Your task to perform on an android device: toggle pop-ups in chrome Image 0: 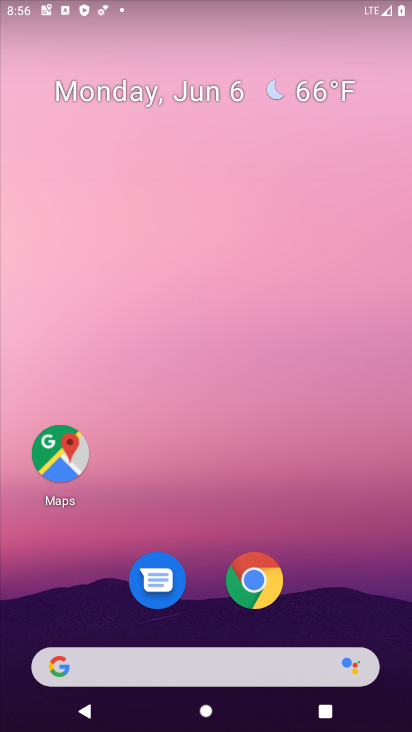
Step 0: drag from (347, 576) to (170, 0)
Your task to perform on an android device: toggle pop-ups in chrome Image 1: 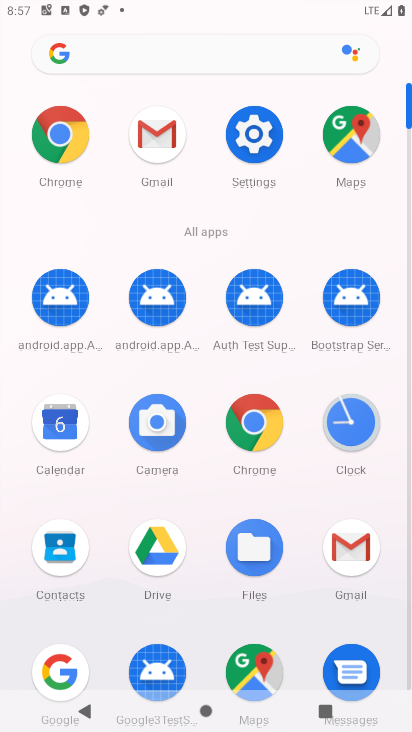
Step 1: click (55, 146)
Your task to perform on an android device: toggle pop-ups in chrome Image 2: 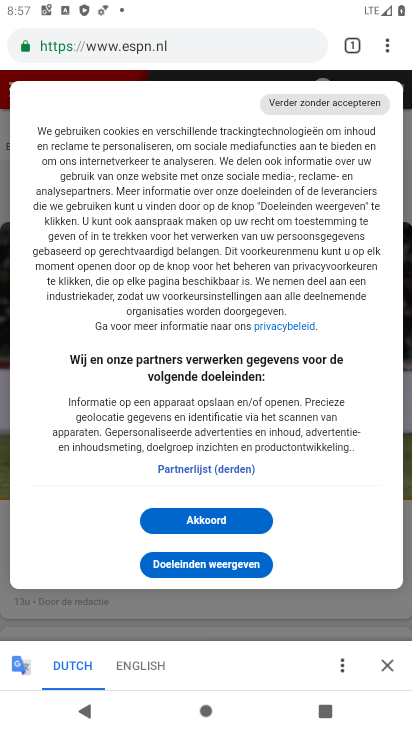
Step 2: drag from (396, 48) to (212, 549)
Your task to perform on an android device: toggle pop-ups in chrome Image 3: 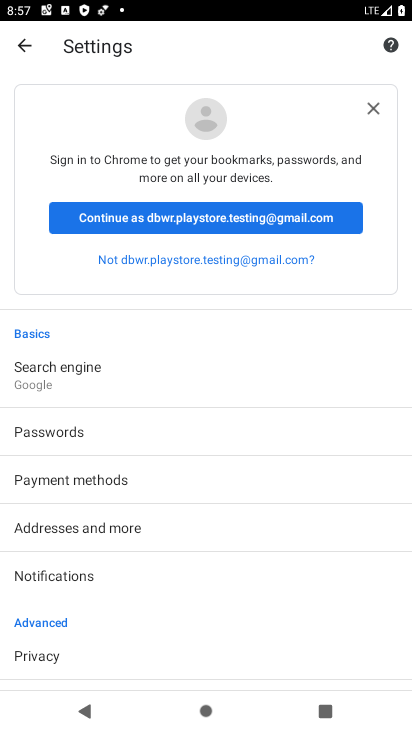
Step 3: drag from (137, 614) to (176, 230)
Your task to perform on an android device: toggle pop-ups in chrome Image 4: 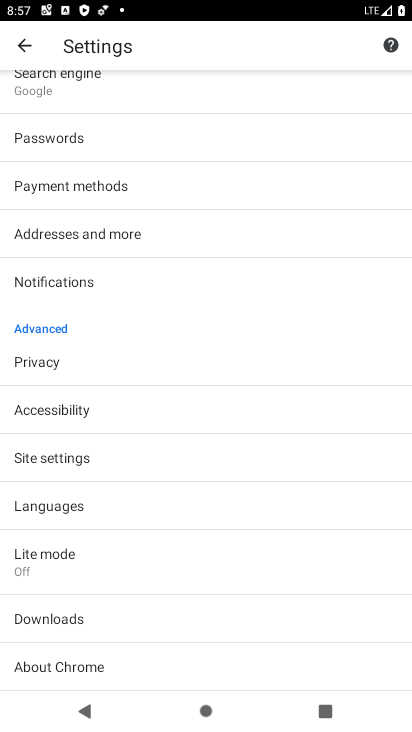
Step 4: drag from (118, 616) to (183, 123)
Your task to perform on an android device: toggle pop-ups in chrome Image 5: 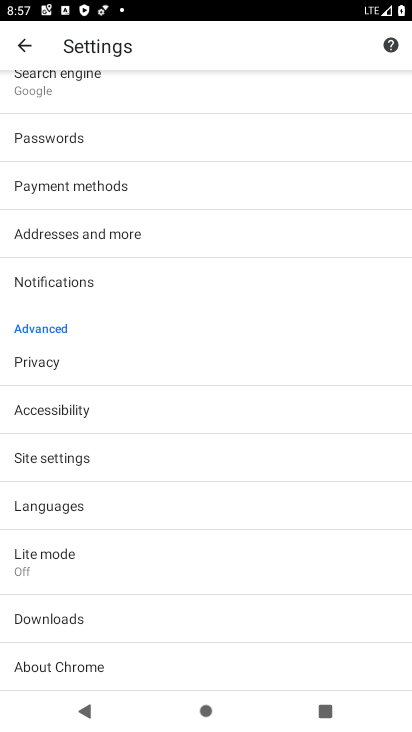
Step 5: click (30, 457)
Your task to perform on an android device: toggle pop-ups in chrome Image 6: 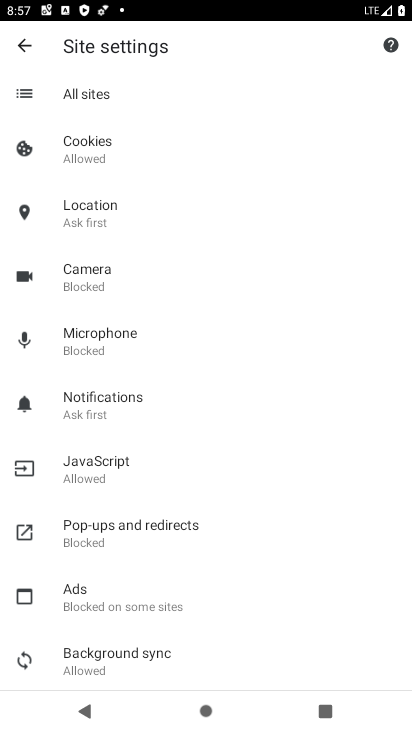
Step 6: click (131, 526)
Your task to perform on an android device: toggle pop-ups in chrome Image 7: 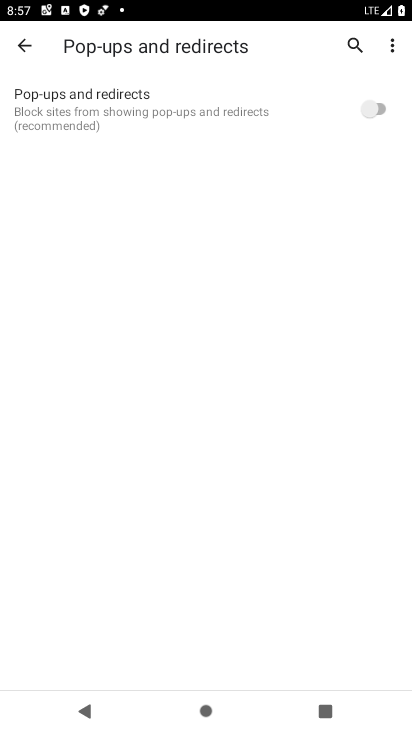
Step 7: click (380, 121)
Your task to perform on an android device: toggle pop-ups in chrome Image 8: 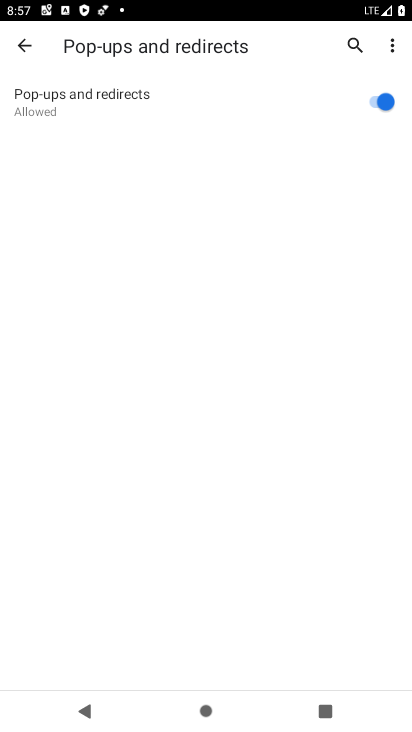
Step 8: task complete